Your task to perform on an android device: change your default location settings in chrome Image 0: 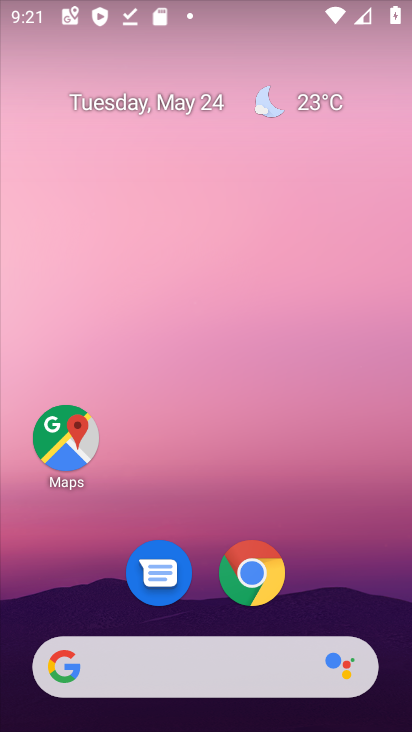
Step 0: drag from (304, 611) to (244, 98)
Your task to perform on an android device: change your default location settings in chrome Image 1: 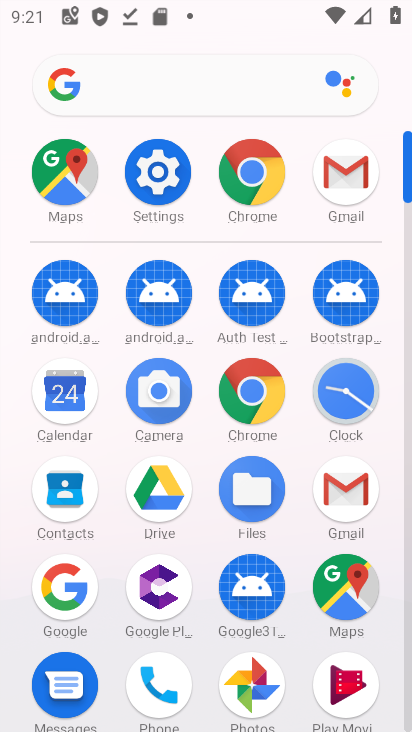
Step 1: click (260, 182)
Your task to perform on an android device: change your default location settings in chrome Image 2: 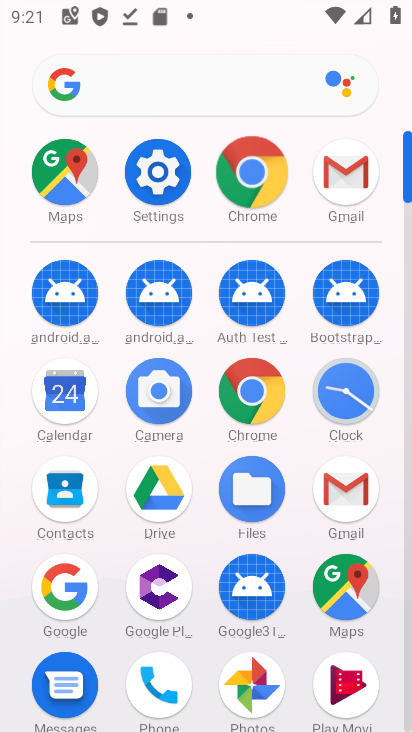
Step 2: click (259, 181)
Your task to perform on an android device: change your default location settings in chrome Image 3: 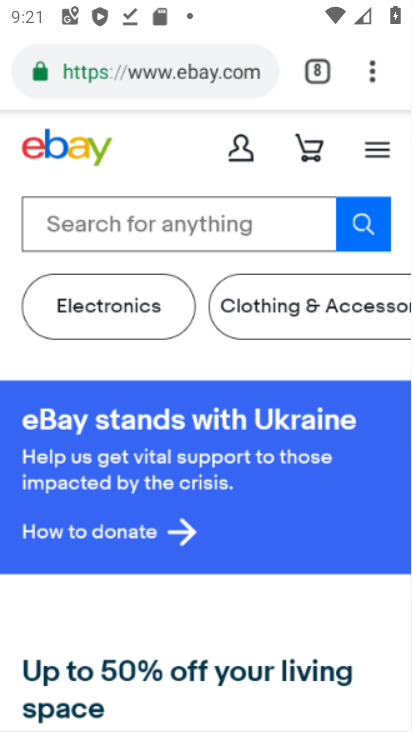
Step 3: click (259, 181)
Your task to perform on an android device: change your default location settings in chrome Image 4: 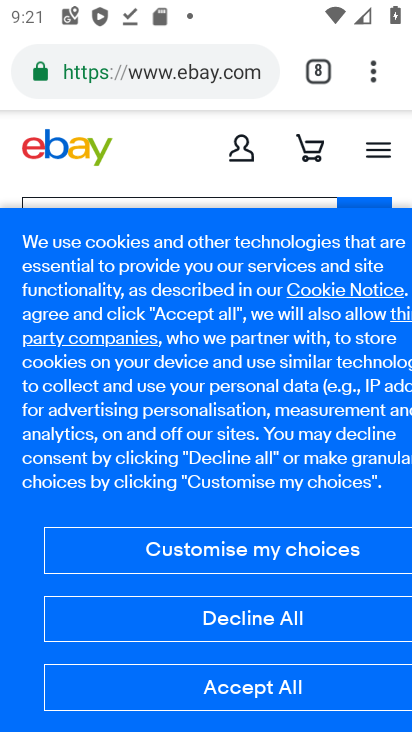
Step 4: click (376, 70)
Your task to perform on an android device: change your default location settings in chrome Image 5: 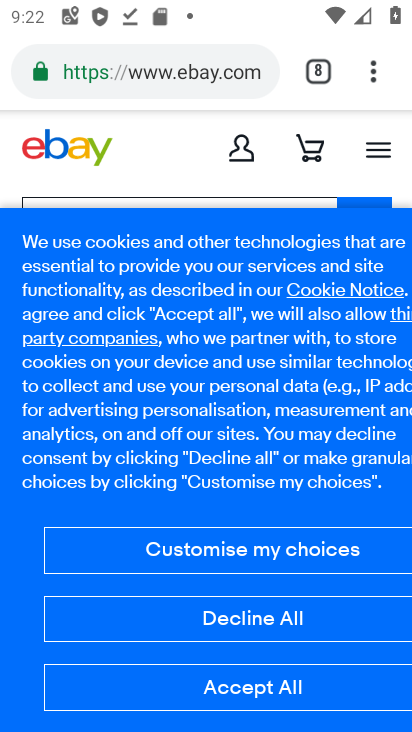
Step 5: drag from (368, 78) to (115, 566)
Your task to perform on an android device: change your default location settings in chrome Image 6: 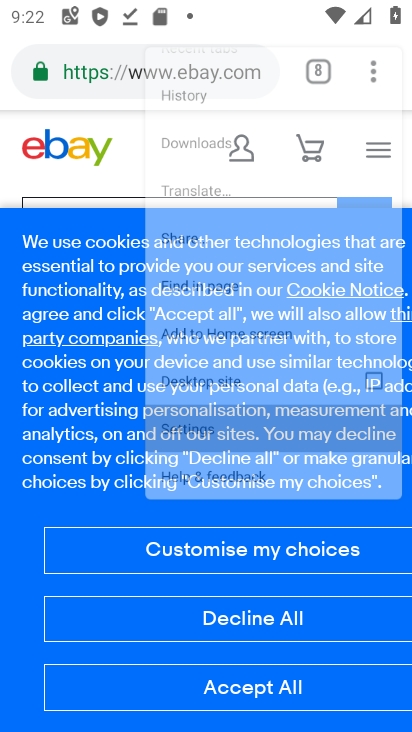
Step 6: click (108, 572)
Your task to perform on an android device: change your default location settings in chrome Image 7: 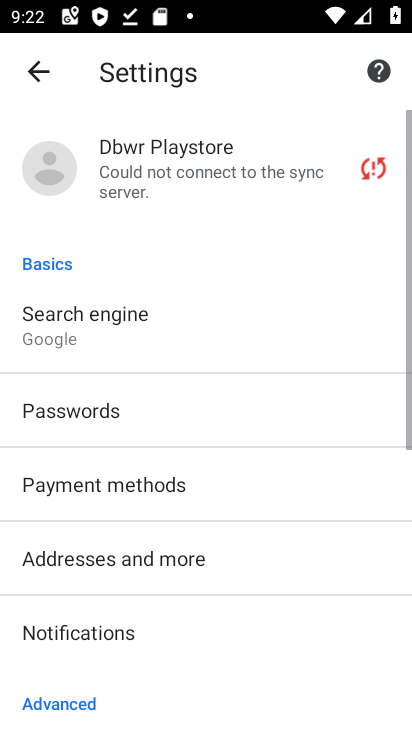
Step 7: drag from (134, 576) to (156, 212)
Your task to perform on an android device: change your default location settings in chrome Image 8: 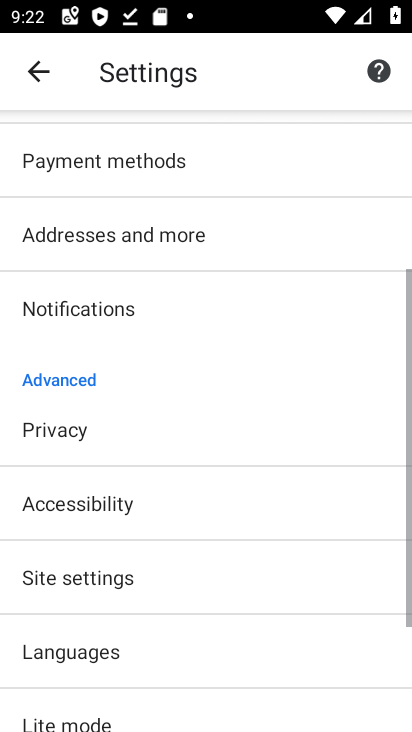
Step 8: drag from (242, 536) to (232, 66)
Your task to perform on an android device: change your default location settings in chrome Image 9: 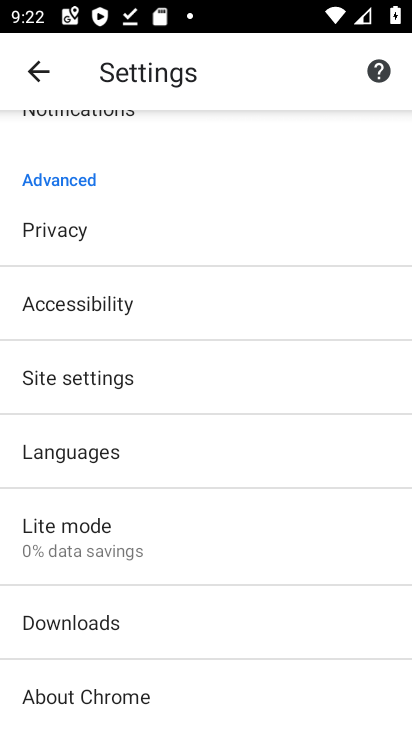
Step 9: click (66, 455)
Your task to perform on an android device: change your default location settings in chrome Image 10: 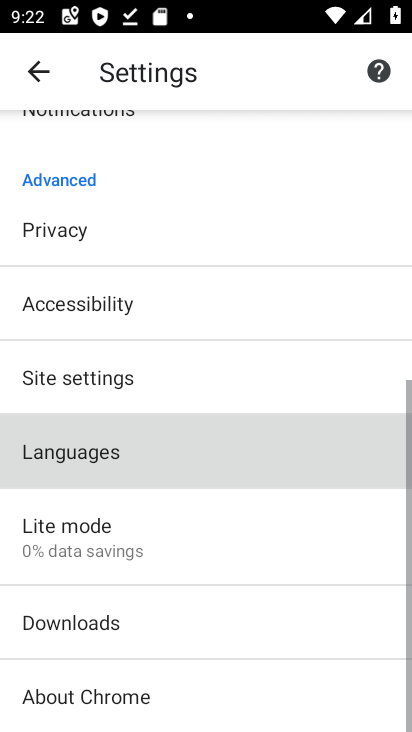
Step 10: click (66, 454)
Your task to perform on an android device: change your default location settings in chrome Image 11: 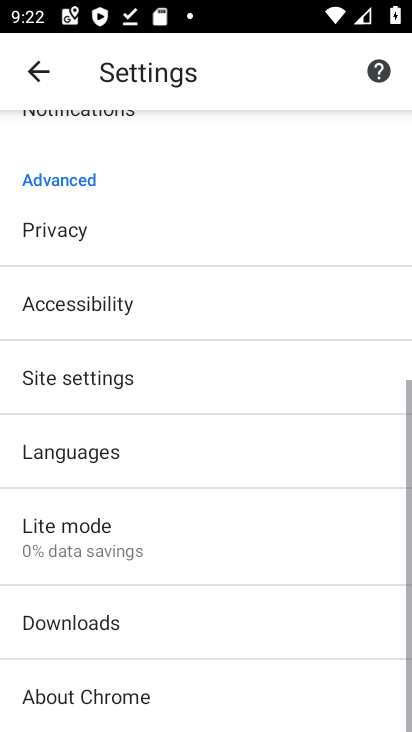
Step 11: click (66, 454)
Your task to perform on an android device: change your default location settings in chrome Image 12: 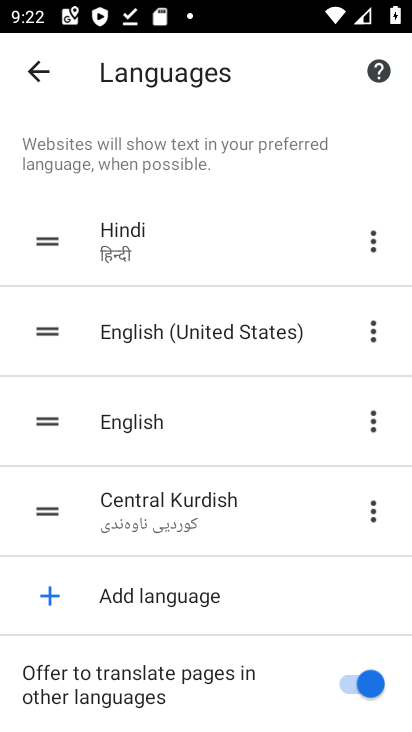
Step 12: drag from (206, 453) to (224, 142)
Your task to perform on an android device: change your default location settings in chrome Image 13: 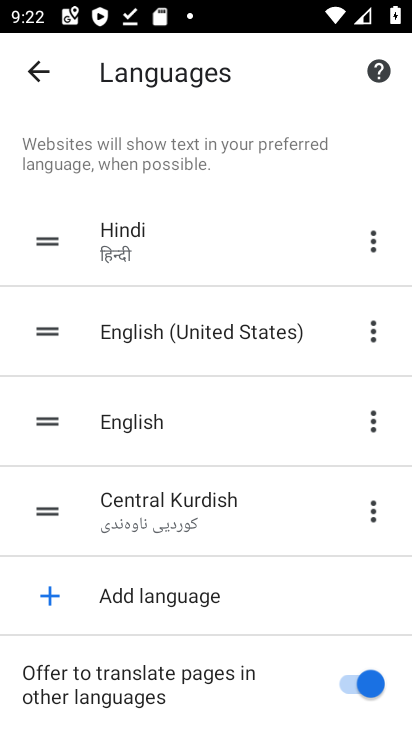
Step 13: drag from (211, 381) to (235, 66)
Your task to perform on an android device: change your default location settings in chrome Image 14: 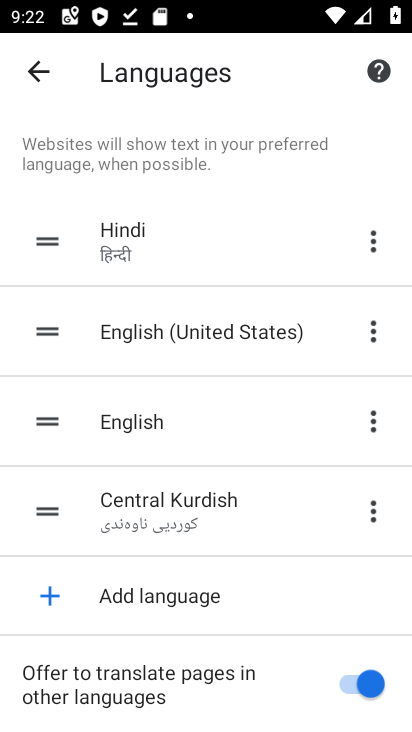
Step 14: drag from (259, 422) to (293, 125)
Your task to perform on an android device: change your default location settings in chrome Image 15: 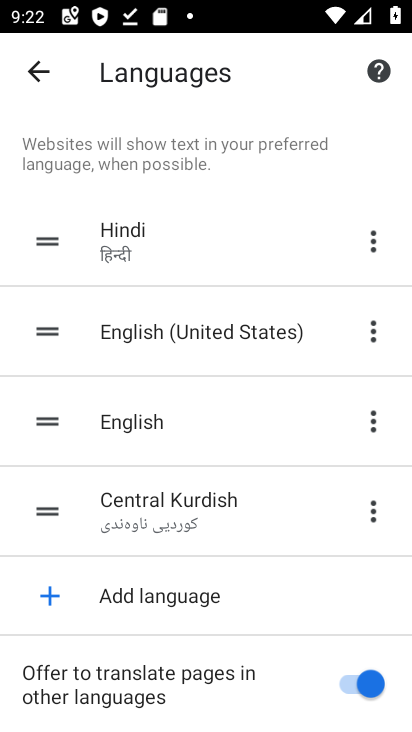
Step 15: drag from (286, 463) to (286, 122)
Your task to perform on an android device: change your default location settings in chrome Image 16: 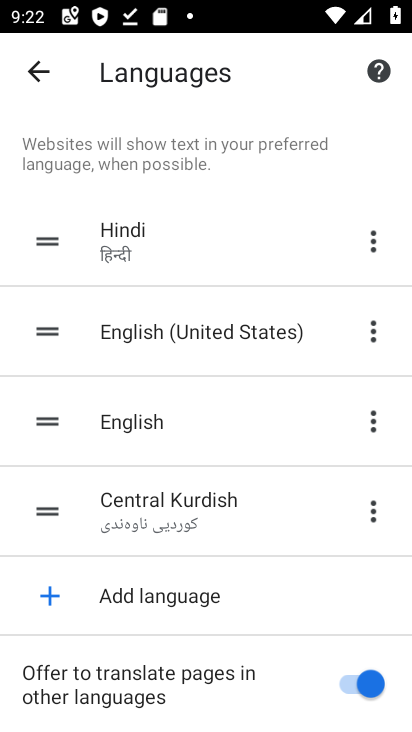
Step 16: drag from (247, 466) to (243, 85)
Your task to perform on an android device: change your default location settings in chrome Image 17: 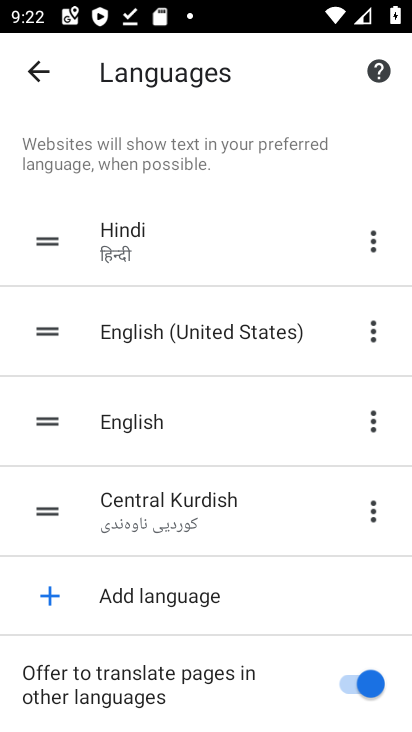
Step 17: drag from (268, 384) to (283, 48)
Your task to perform on an android device: change your default location settings in chrome Image 18: 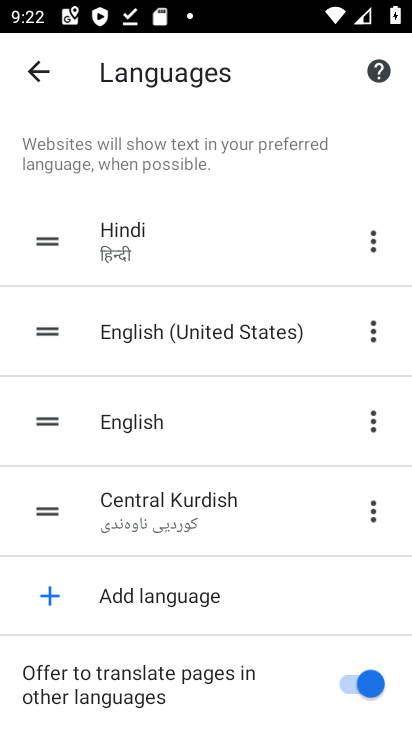
Step 18: click (35, 63)
Your task to perform on an android device: change your default location settings in chrome Image 19: 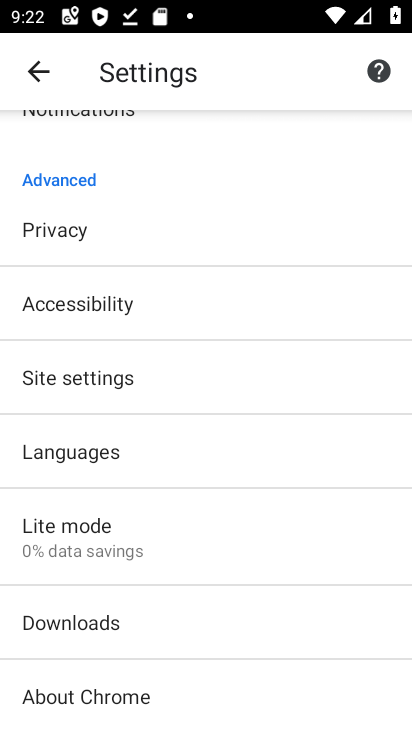
Step 19: click (69, 382)
Your task to perform on an android device: change your default location settings in chrome Image 20: 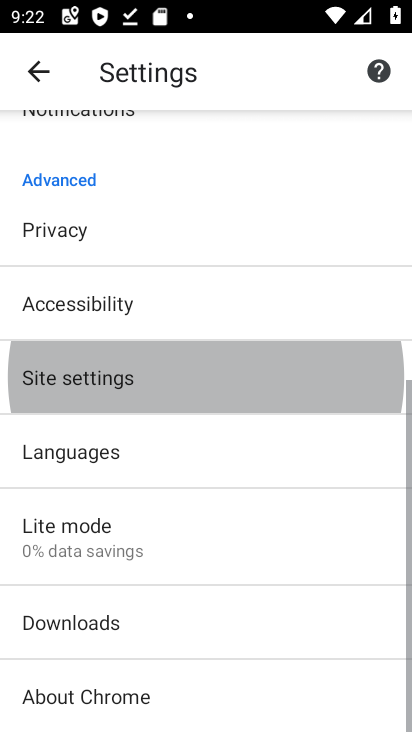
Step 20: click (69, 382)
Your task to perform on an android device: change your default location settings in chrome Image 21: 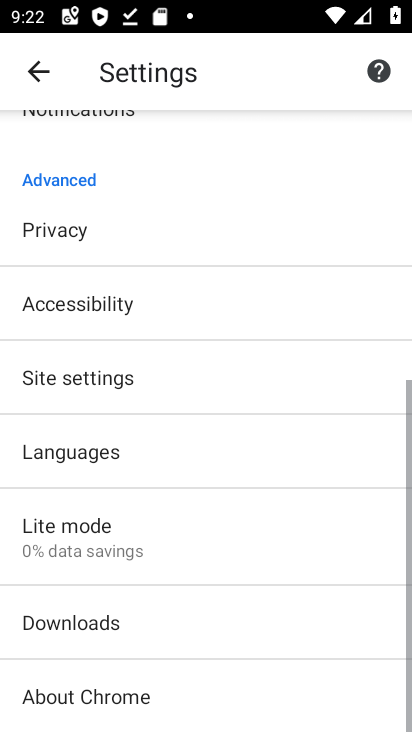
Step 21: click (70, 381)
Your task to perform on an android device: change your default location settings in chrome Image 22: 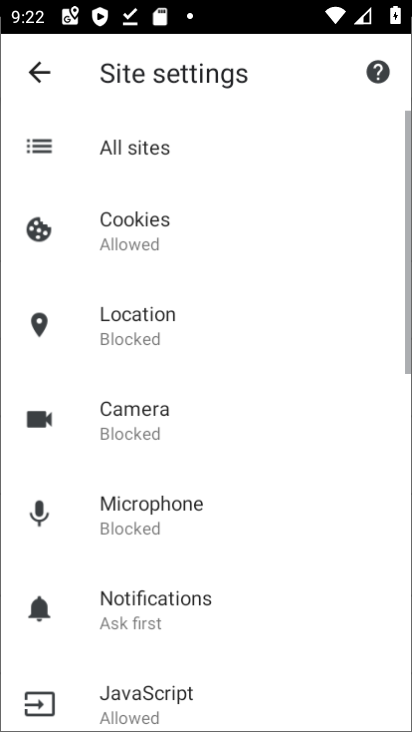
Step 22: click (72, 380)
Your task to perform on an android device: change your default location settings in chrome Image 23: 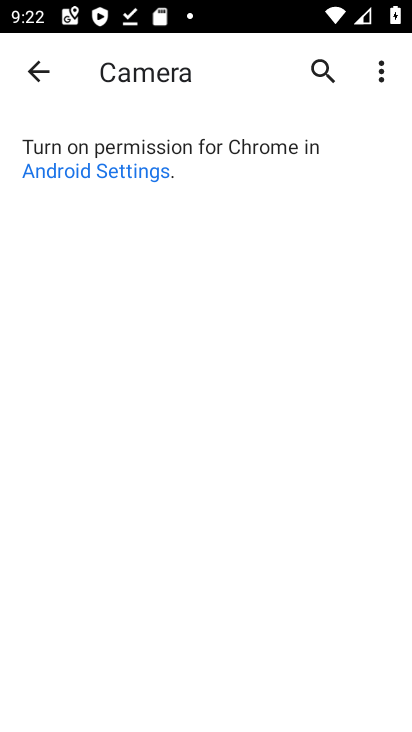
Step 23: click (32, 69)
Your task to perform on an android device: change your default location settings in chrome Image 24: 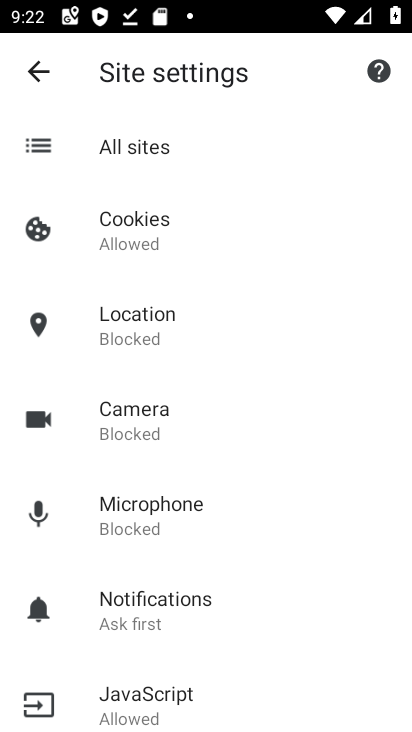
Step 24: click (127, 330)
Your task to perform on an android device: change your default location settings in chrome Image 25: 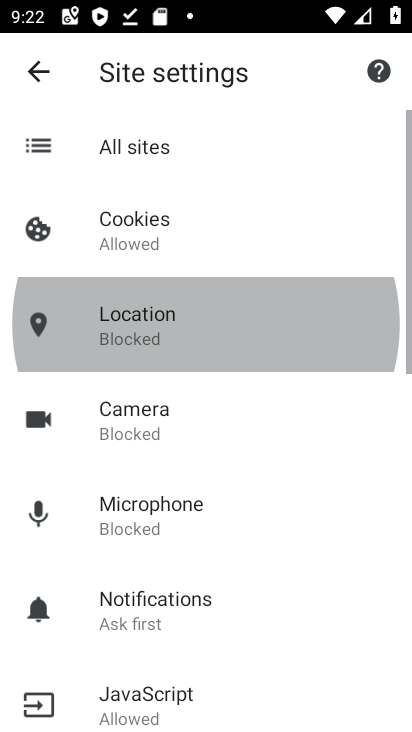
Step 25: click (127, 330)
Your task to perform on an android device: change your default location settings in chrome Image 26: 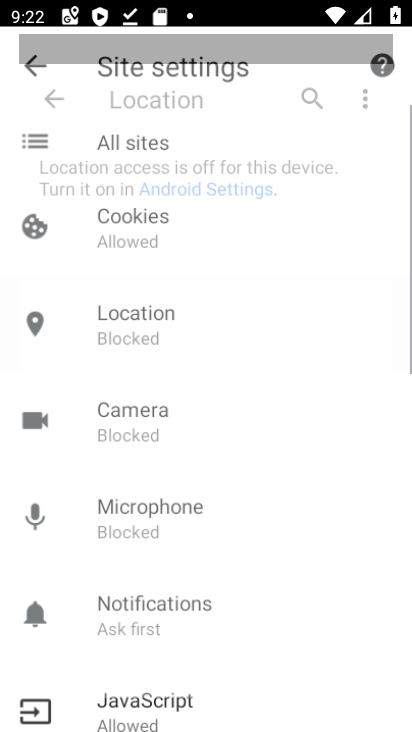
Step 26: click (128, 329)
Your task to perform on an android device: change your default location settings in chrome Image 27: 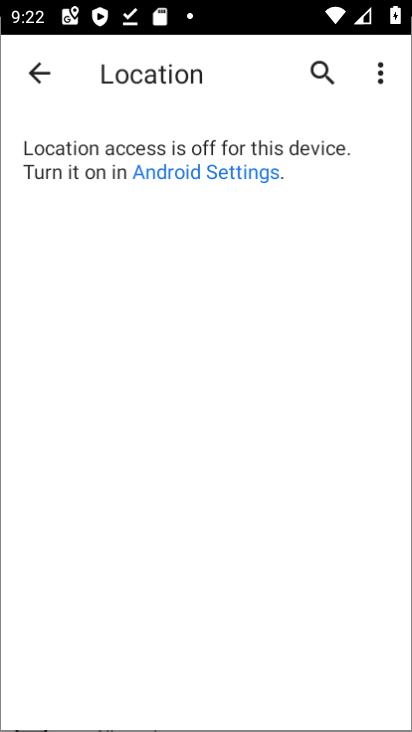
Step 27: click (128, 329)
Your task to perform on an android device: change your default location settings in chrome Image 28: 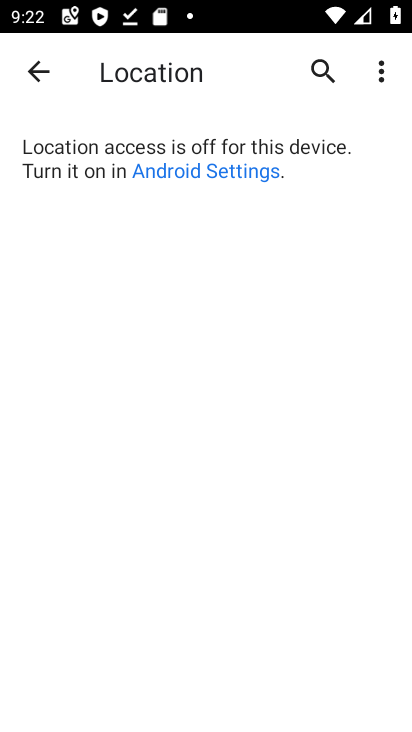
Step 28: click (128, 329)
Your task to perform on an android device: change your default location settings in chrome Image 29: 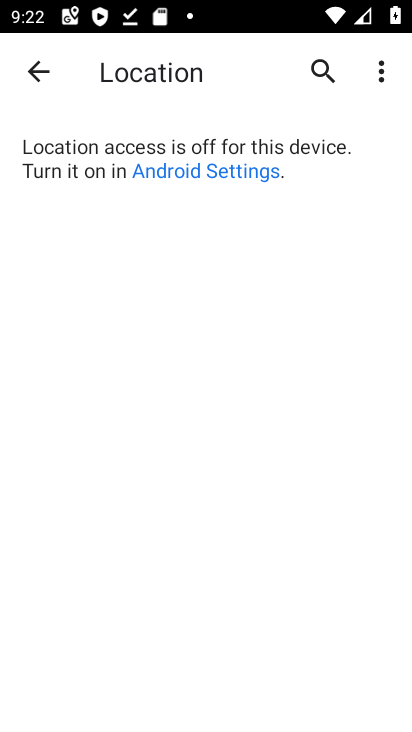
Step 29: click (128, 329)
Your task to perform on an android device: change your default location settings in chrome Image 30: 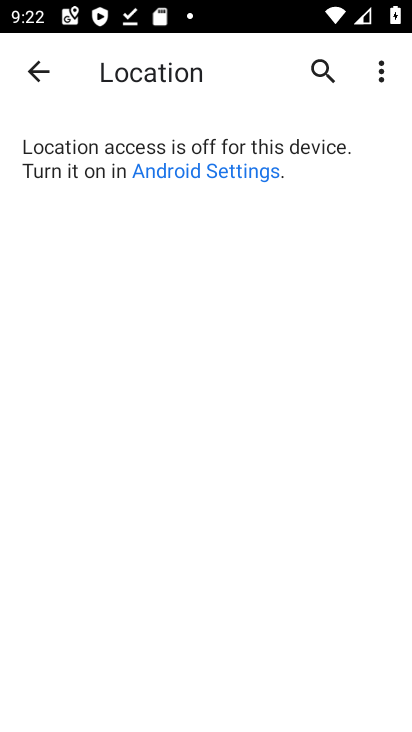
Step 30: click (128, 329)
Your task to perform on an android device: change your default location settings in chrome Image 31: 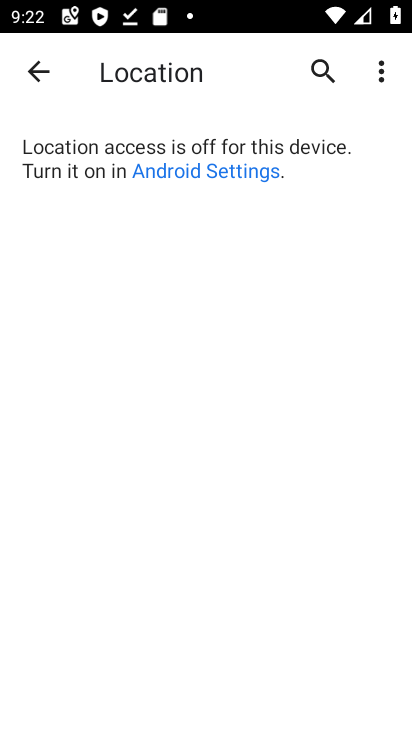
Step 31: task complete